Your task to perform on an android device: What is the recent news? Image 0: 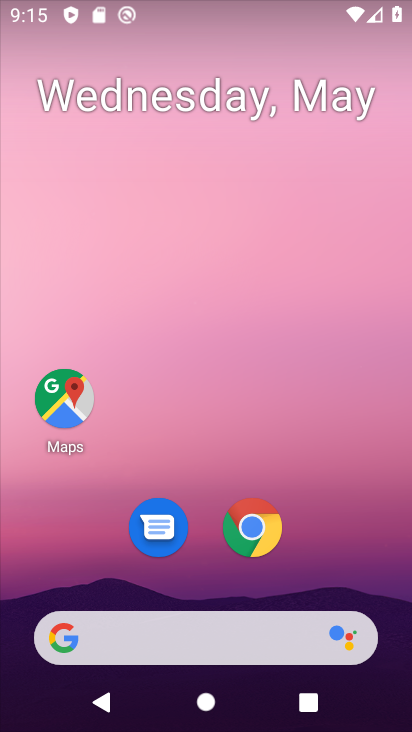
Step 0: drag from (263, 555) to (233, 538)
Your task to perform on an android device: What is the recent news? Image 1: 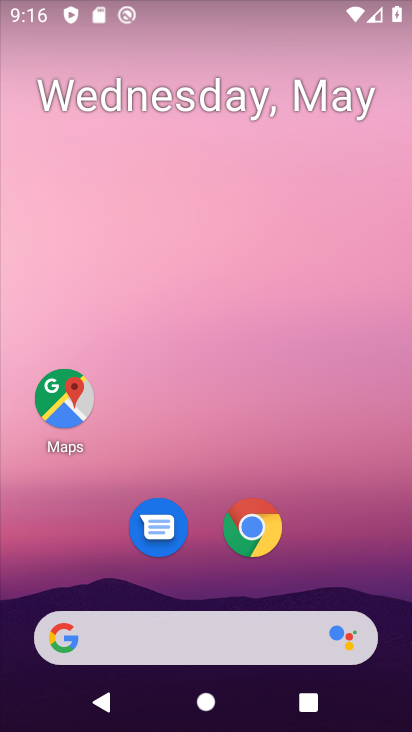
Step 1: click (269, 529)
Your task to perform on an android device: What is the recent news? Image 2: 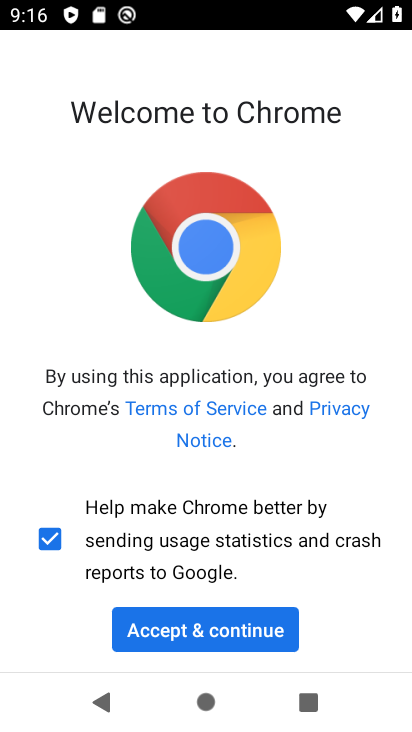
Step 2: click (244, 620)
Your task to perform on an android device: What is the recent news? Image 3: 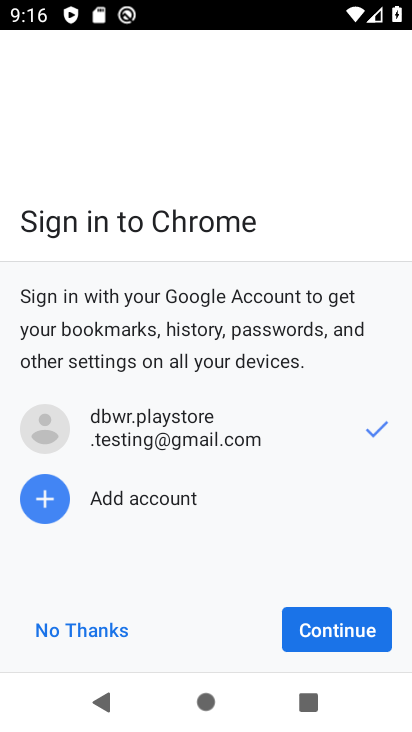
Step 3: click (345, 629)
Your task to perform on an android device: What is the recent news? Image 4: 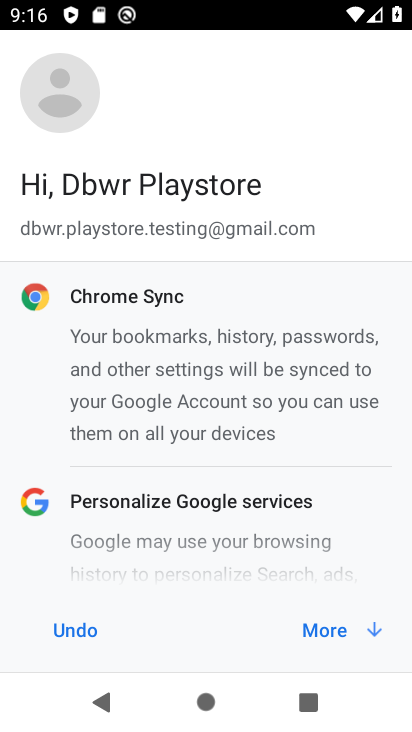
Step 4: click (345, 629)
Your task to perform on an android device: What is the recent news? Image 5: 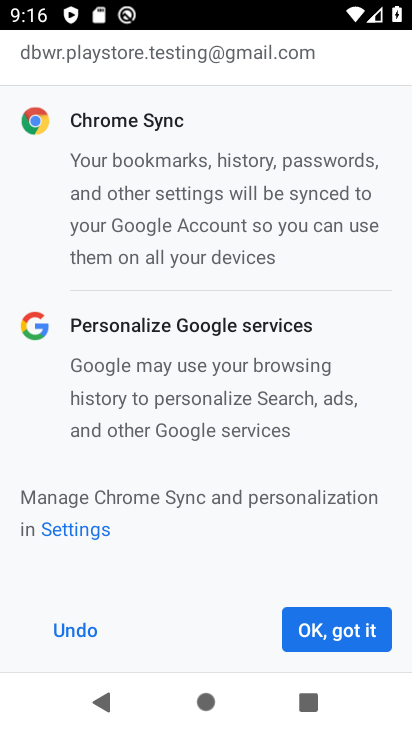
Step 5: click (345, 629)
Your task to perform on an android device: What is the recent news? Image 6: 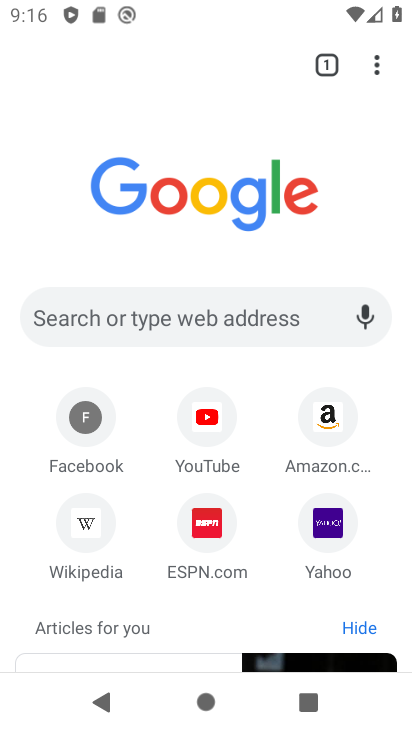
Step 6: click (187, 312)
Your task to perform on an android device: What is the recent news? Image 7: 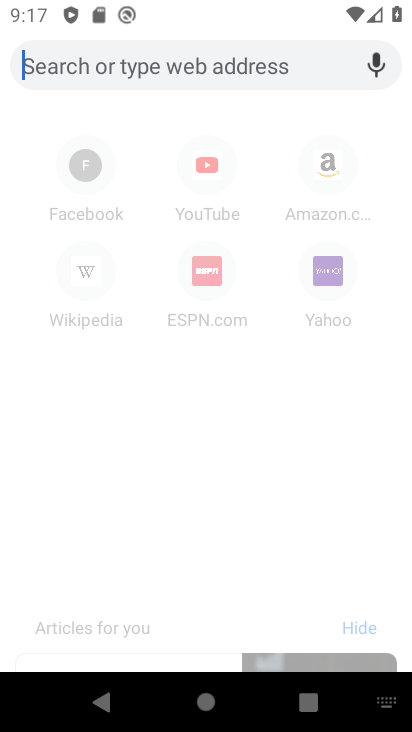
Step 7: type "What is the recent news?"
Your task to perform on an android device: What is the recent news? Image 8: 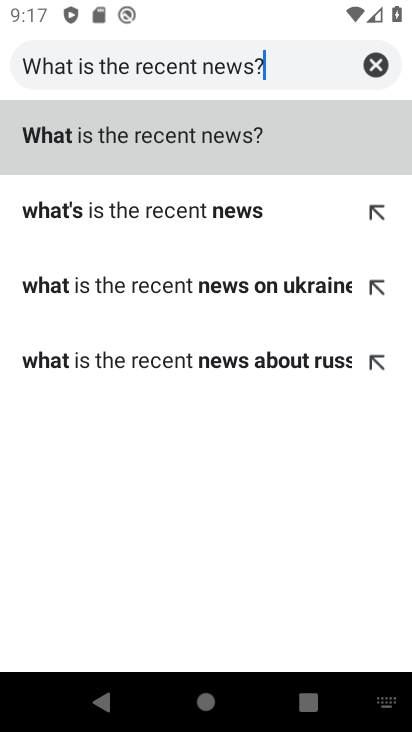
Step 8: click (233, 128)
Your task to perform on an android device: What is the recent news? Image 9: 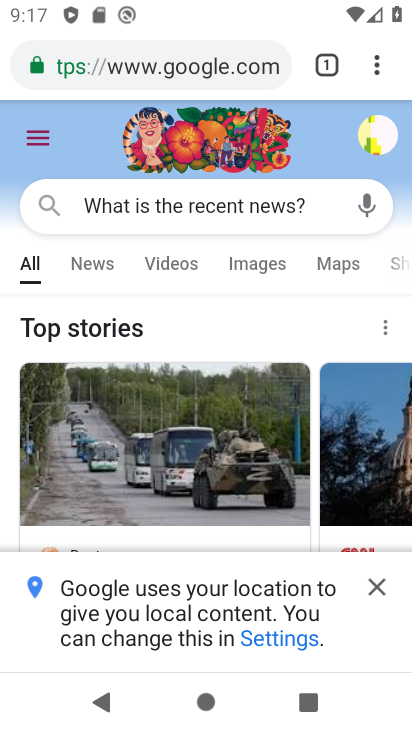
Step 9: click (371, 586)
Your task to perform on an android device: What is the recent news? Image 10: 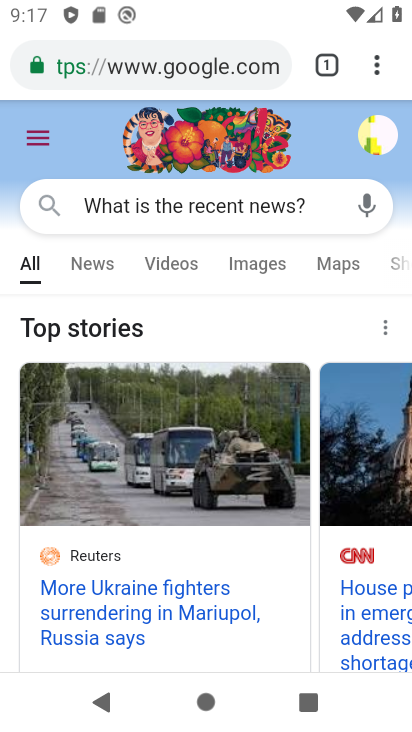
Step 10: click (83, 265)
Your task to perform on an android device: What is the recent news? Image 11: 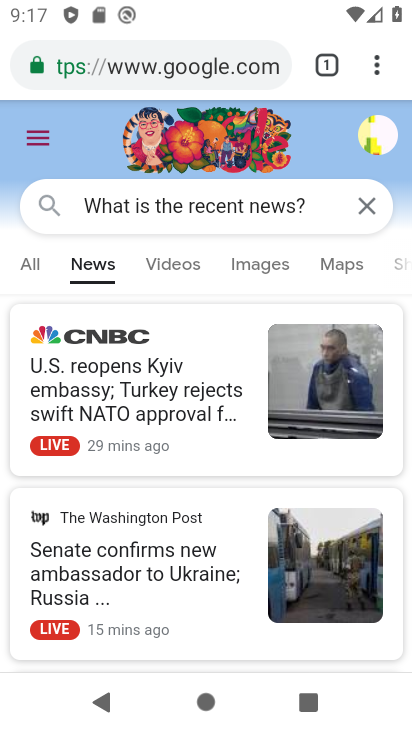
Step 11: task complete